Your task to perform on an android device: Go to Maps Image 0: 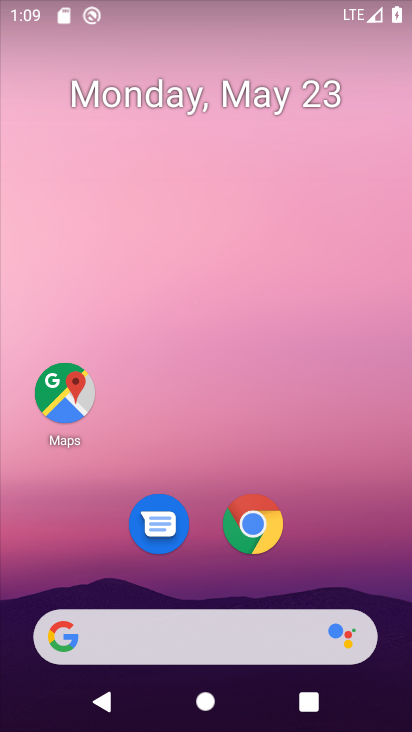
Step 0: click (61, 402)
Your task to perform on an android device: Go to Maps Image 1: 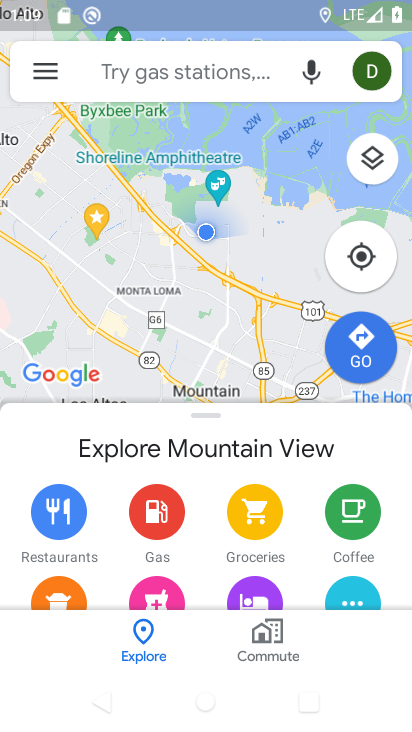
Step 1: task complete